Your task to perform on an android device: Open Yahoo.com Image 0: 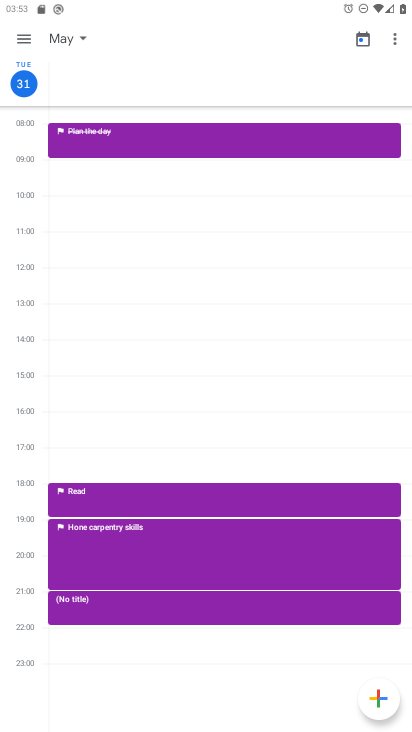
Step 0: press home button
Your task to perform on an android device: Open Yahoo.com Image 1: 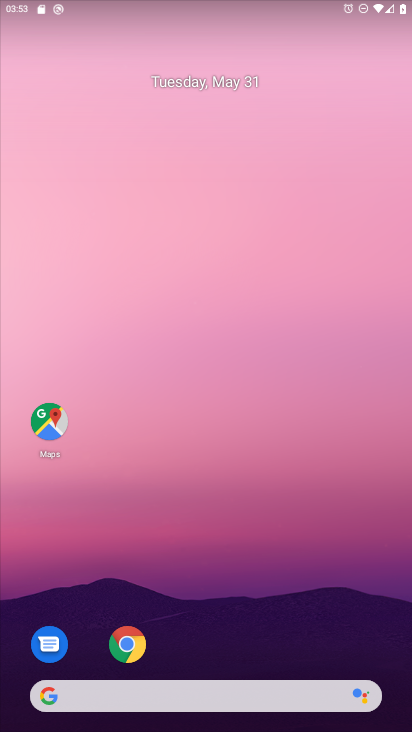
Step 1: drag from (273, 602) to (262, 172)
Your task to perform on an android device: Open Yahoo.com Image 2: 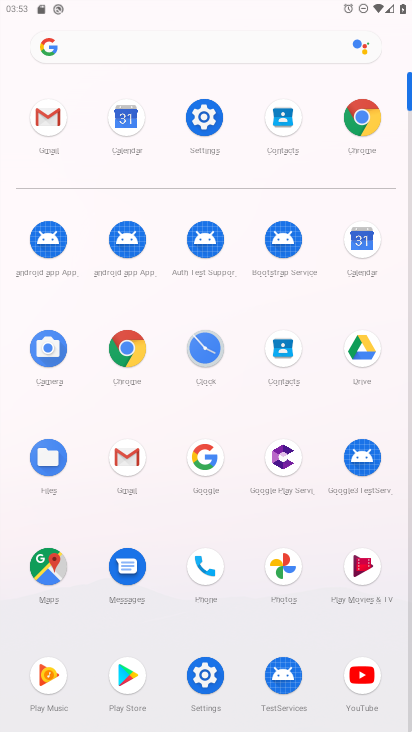
Step 2: click (360, 124)
Your task to perform on an android device: Open Yahoo.com Image 3: 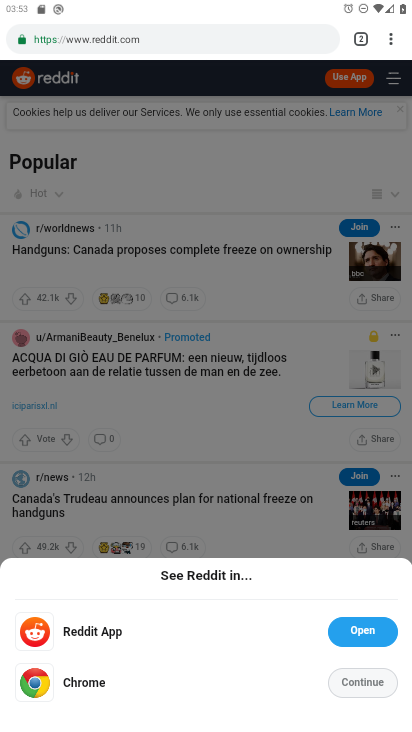
Step 3: click (134, 44)
Your task to perform on an android device: Open Yahoo.com Image 4: 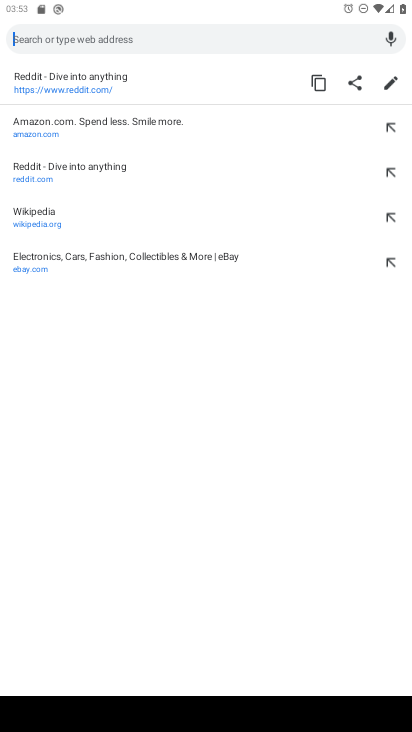
Step 4: type "yshoo.com"
Your task to perform on an android device: Open Yahoo.com Image 5: 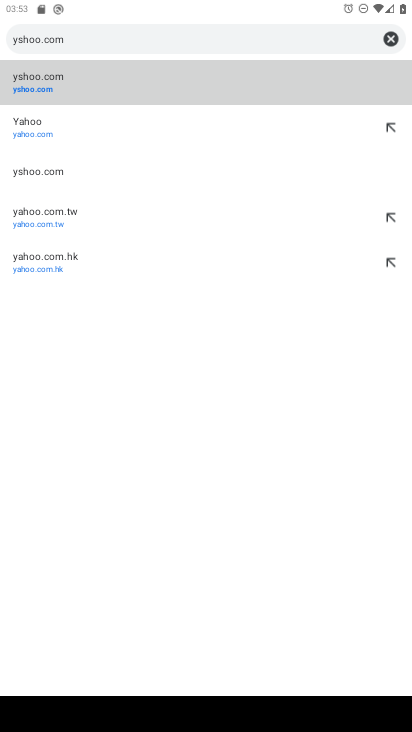
Step 5: click (31, 86)
Your task to perform on an android device: Open Yahoo.com Image 6: 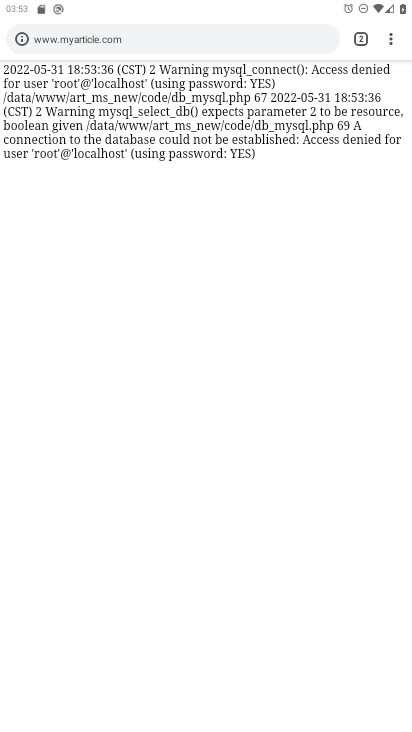
Step 6: click (130, 40)
Your task to perform on an android device: Open Yahoo.com Image 7: 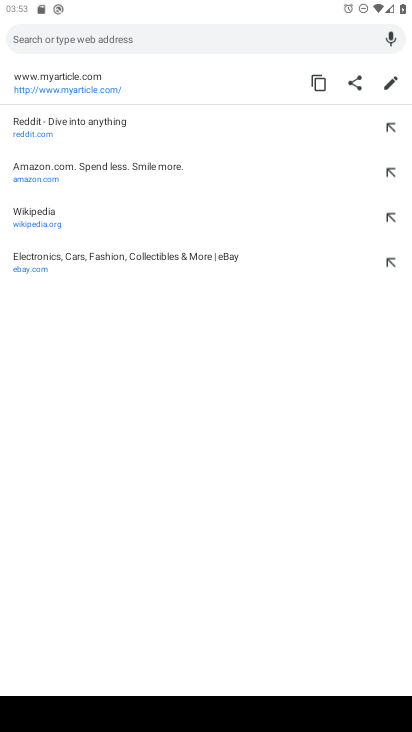
Step 7: type "yahoo.com"
Your task to perform on an android device: Open Yahoo.com Image 8: 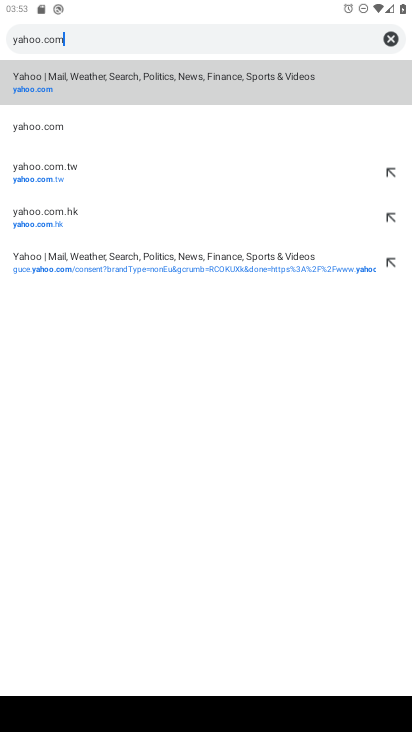
Step 8: click (45, 93)
Your task to perform on an android device: Open Yahoo.com Image 9: 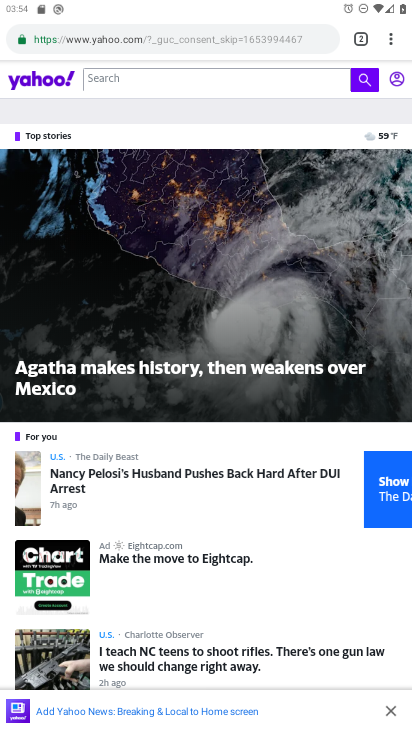
Step 9: task complete